Your task to perform on an android device: change the clock display to show seconds Image 0: 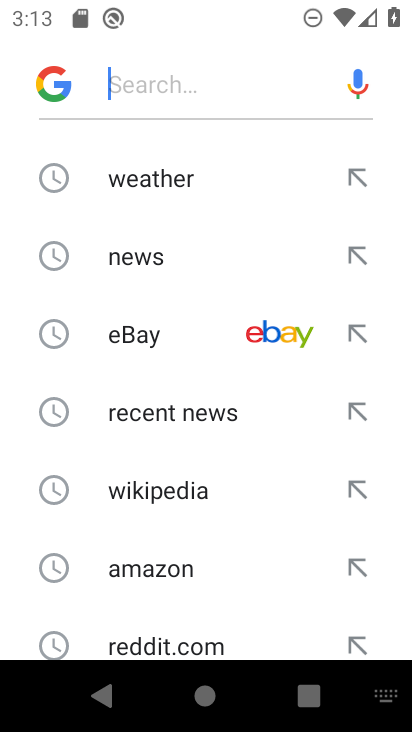
Step 0: press home button
Your task to perform on an android device: change the clock display to show seconds Image 1: 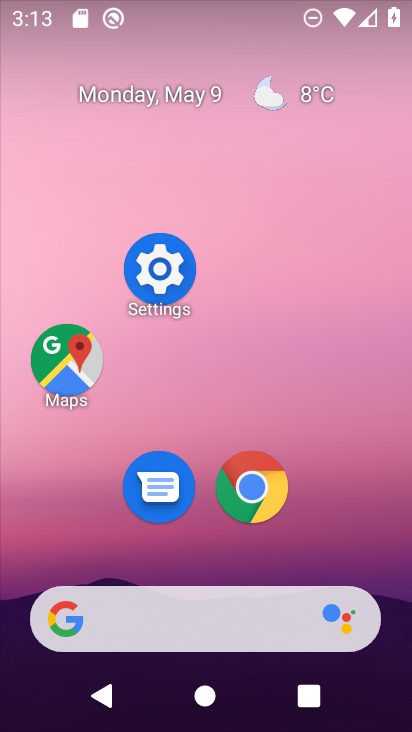
Step 1: drag from (342, 530) to (298, 27)
Your task to perform on an android device: change the clock display to show seconds Image 2: 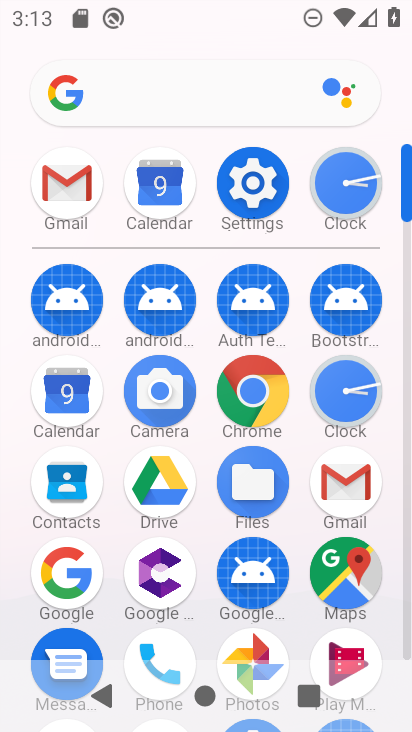
Step 2: click (333, 389)
Your task to perform on an android device: change the clock display to show seconds Image 3: 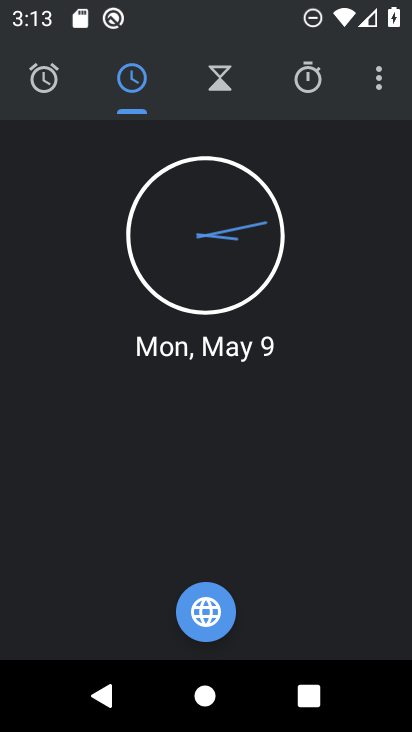
Step 3: click (367, 94)
Your task to perform on an android device: change the clock display to show seconds Image 4: 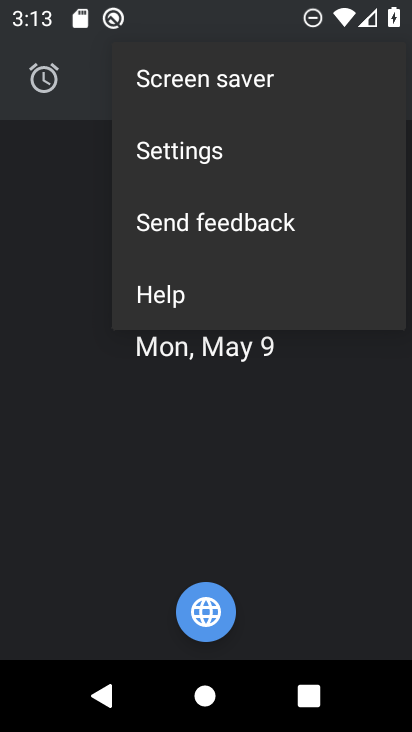
Step 4: click (212, 170)
Your task to perform on an android device: change the clock display to show seconds Image 5: 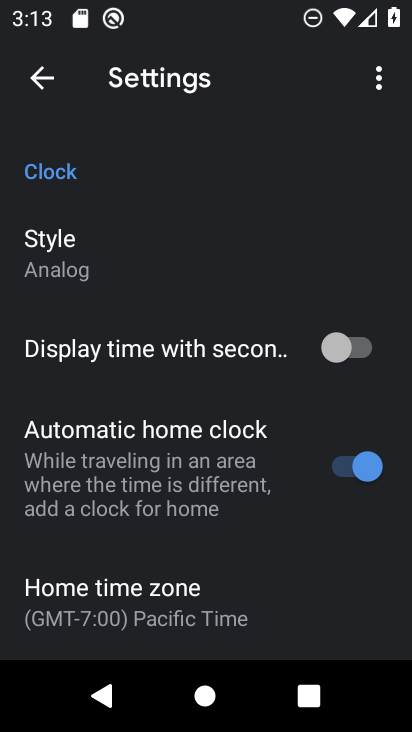
Step 5: click (340, 348)
Your task to perform on an android device: change the clock display to show seconds Image 6: 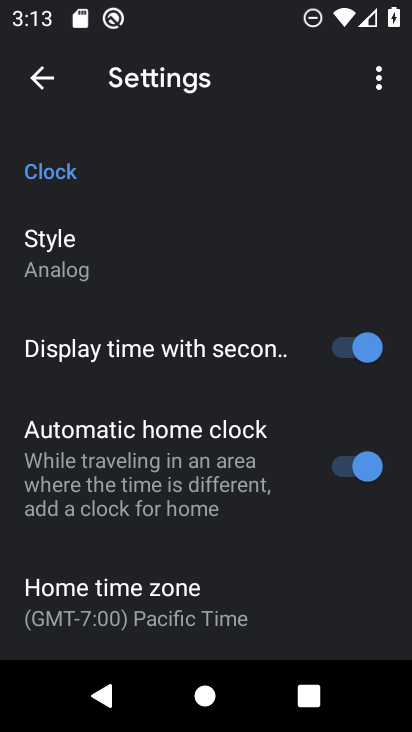
Step 6: task complete